Your task to perform on an android device: Open location settings Image 0: 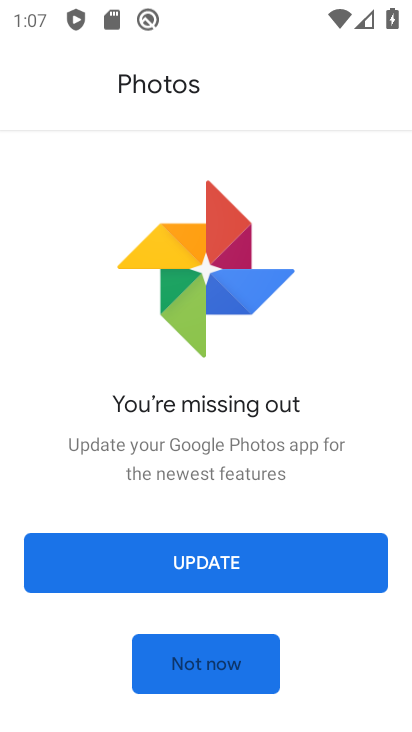
Step 0: press home button
Your task to perform on an android device: Open location settings Image 1: 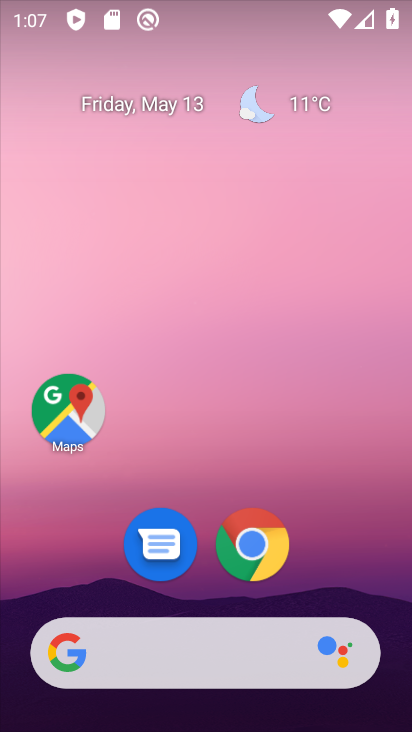
Step 1: drag from (104, 569) to (151, 186)
Your task to perform on an android device: Open location settings Image 2: 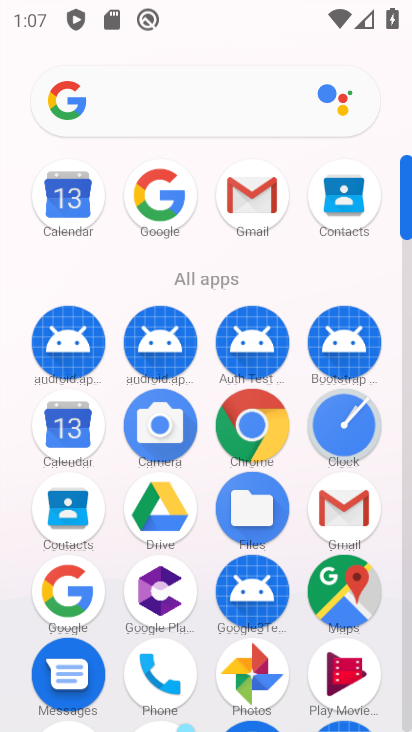
Step 2: drag from (210, 551) to (242, 266)
Your task to perform on an android device: Open location settings Image 3: 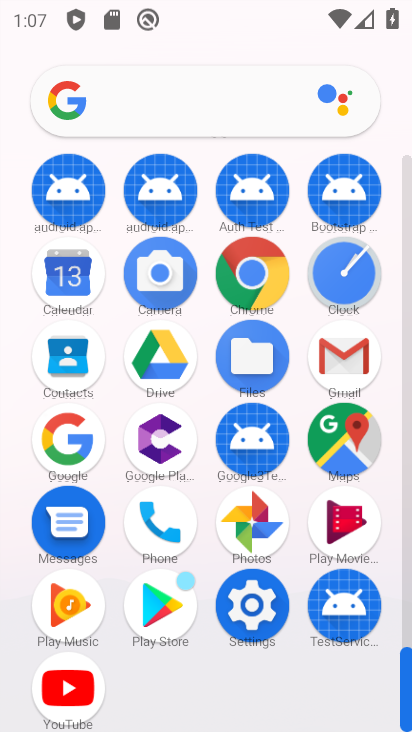
Step 3: click (258, 604)
Your task to perform on an android device: Open location settings Image 4: 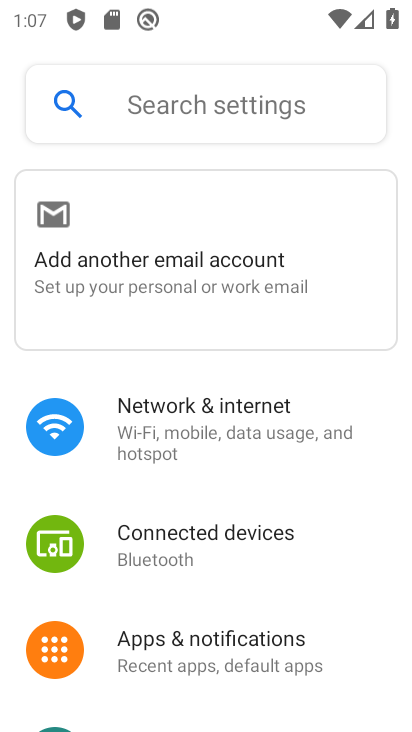
Step 4: drag from (349, 587) to (359, 315)
Your task to perform on an android device: Open location settings Image 5: 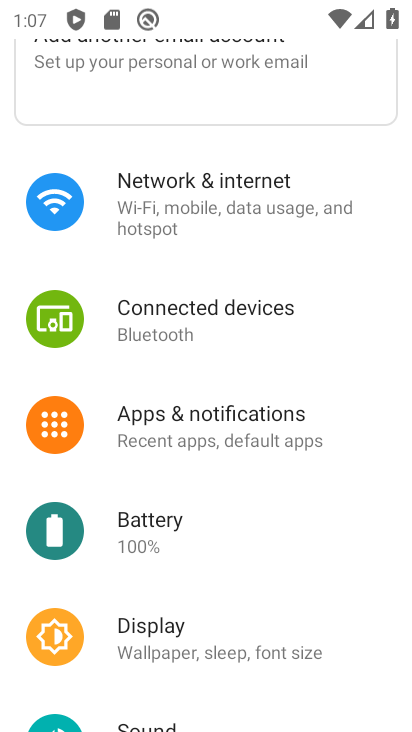
Step 5: drag from (264, 577) to (316, 246)
Your task to perform on an android device: Open location settings Image 6: 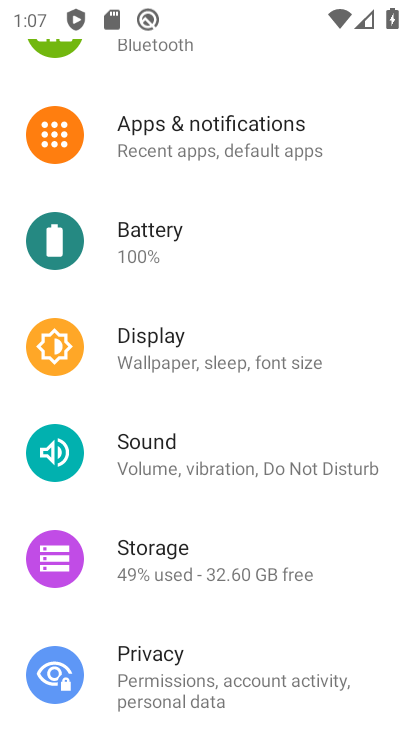
Step 6: drag from (256, 644) to (283, 342)
Your task to perform on an android device: Open location settings Image 7: 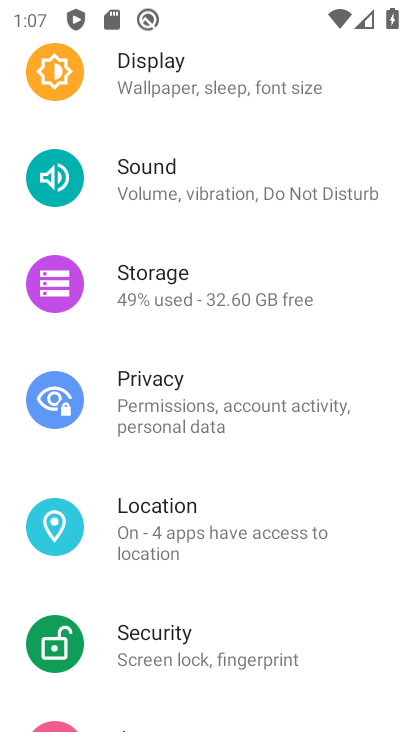
Step 7: click (161, 517)
Your task to perform on an android device: Open location settings Image 8: 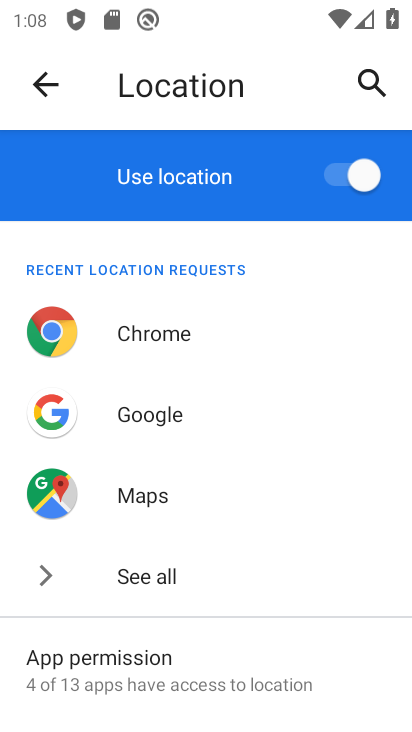
Step 8: task complete